Your task to perform on an android device: Show me popular games on the Play Store Image 0: 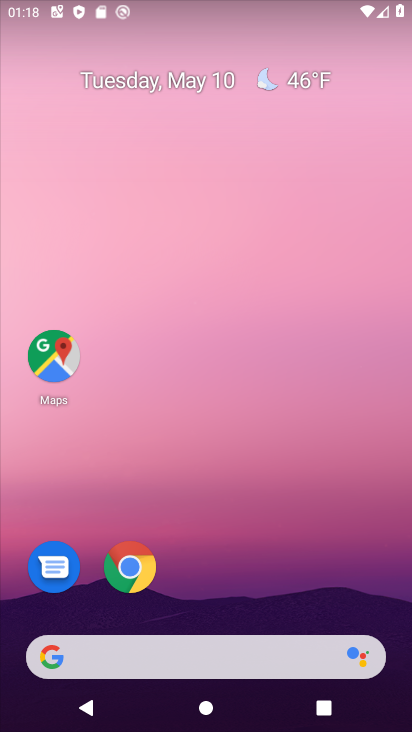
Step 0: click (117, 570)
Your task to perform on an android device: Show me popular games on the Play Store Image 1: 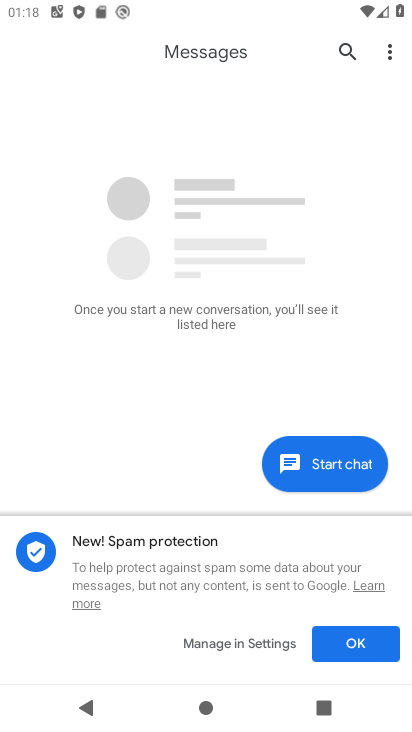
Step 1: press home button
Your task to perform on an android device: Show me popular games on the Play Store Image 2: 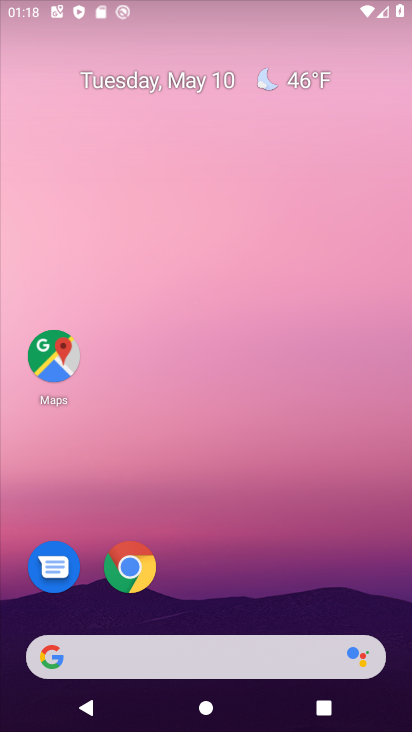
Step 2: drag from (269, 565) to (287, 161)
Your task to perform on an android device: Show me popular games on the Play Store Image 3: 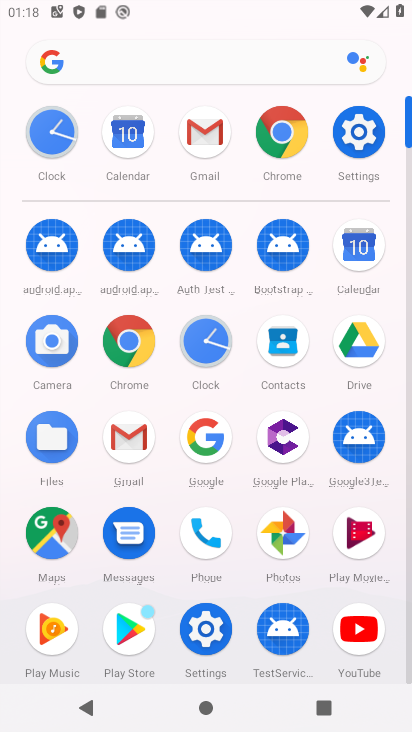
Step 3: click (143, 641)
Your task to perform on an android device: Show me popular games on the Play Store Image 4: 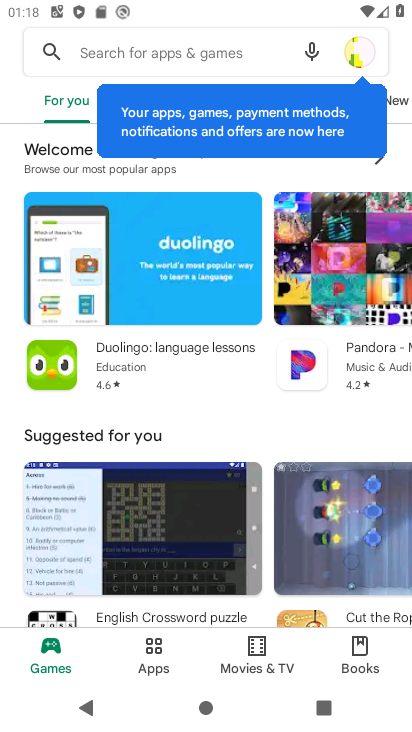
Step 4: drag from (200, 532) to (257, 170)
Your task to perform on an android device: Show me popular games on the Play Store Image 5: 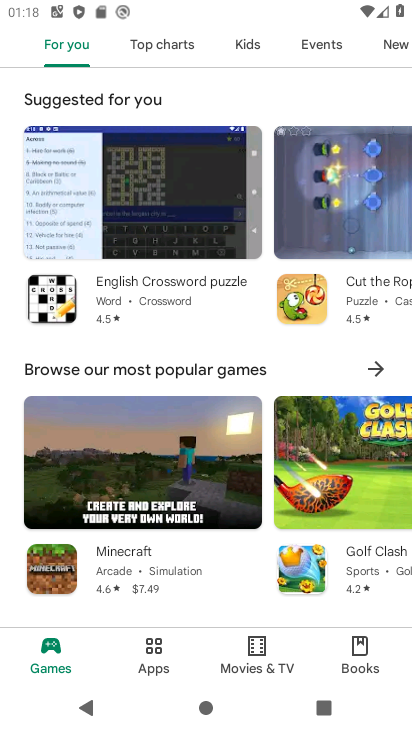
Step 5: drag from (233, 567) to (263, 343)
Your task to perform on an android device: Show me popular games on the Play Store Image 6: 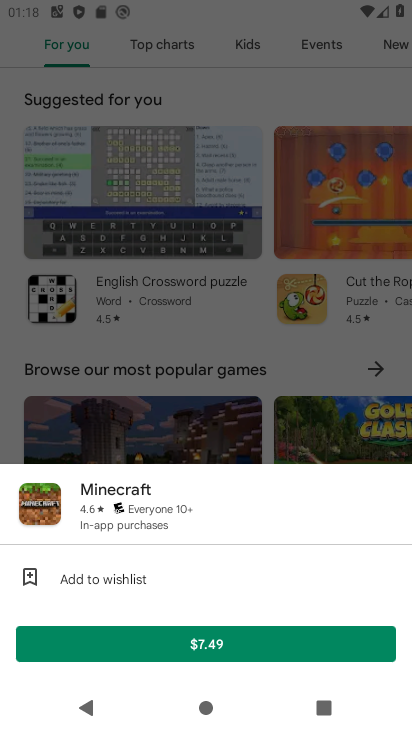
Step 6: click (324, 364)
Your task to perform on an android device: Show me popular games on the Play Store Image 7: 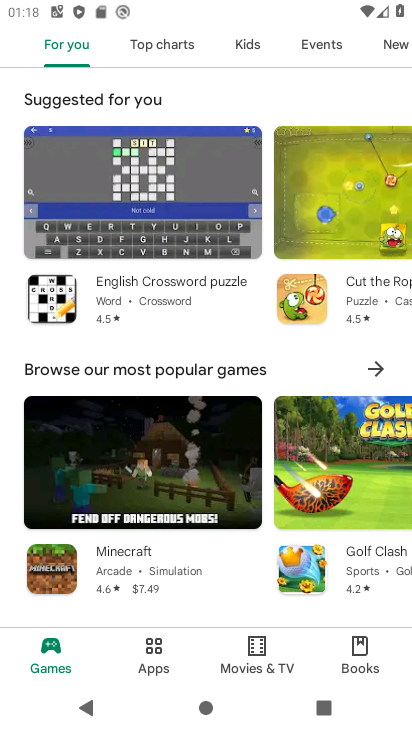
Step 7: click (332, 375)
Your task to perform on an android device: Show me popular games on the Play Store Image 8: 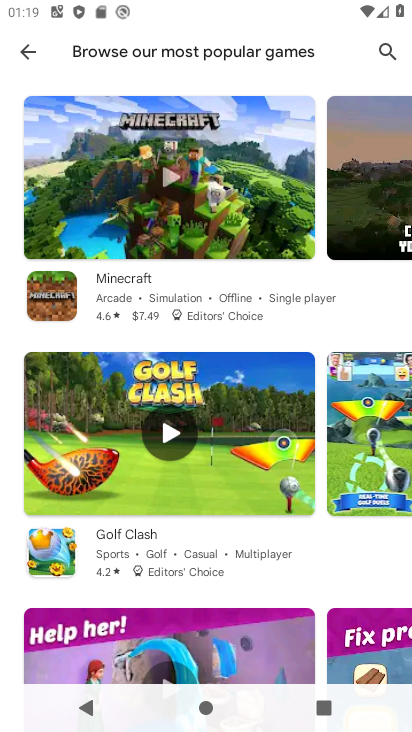
Step 8: task complete